Your task to perform on an android device: Open Chrome and go to settings Image 0: 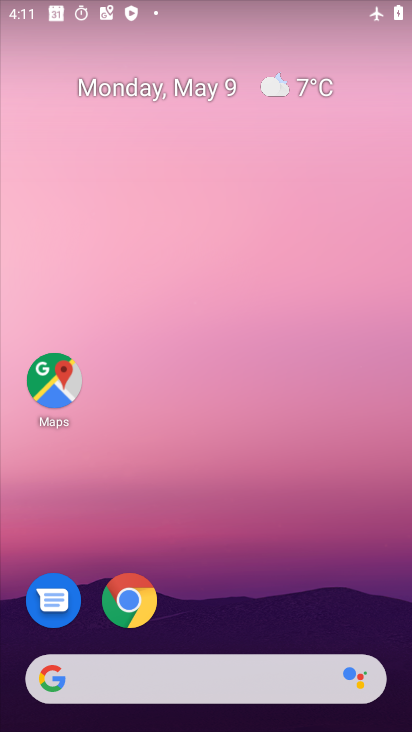
Step 0: drag from (211, 579) to (200, 168)
Your task to perform on an android device: Open Chrome and go to settings Image 1: 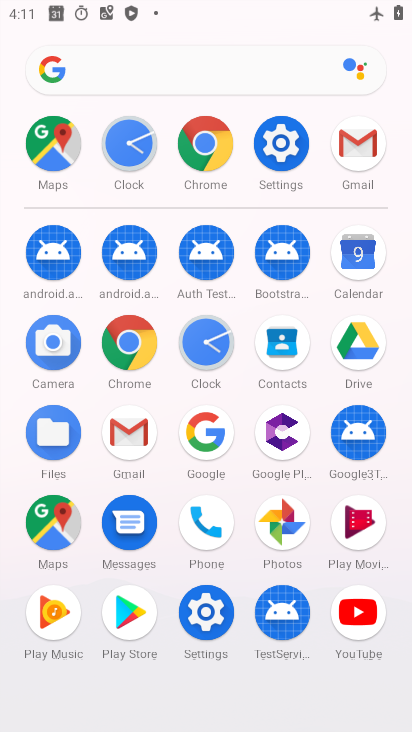
Step 1: click (121, 346)
Your task to perform on an android device: Open Chrome and go to settings Image 2: 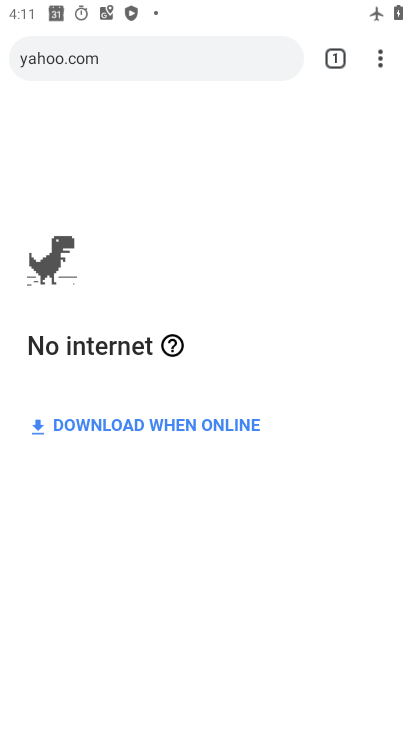
Step 2: task complete